Your task to perform on an android device: change the clock display to digital Image 0: 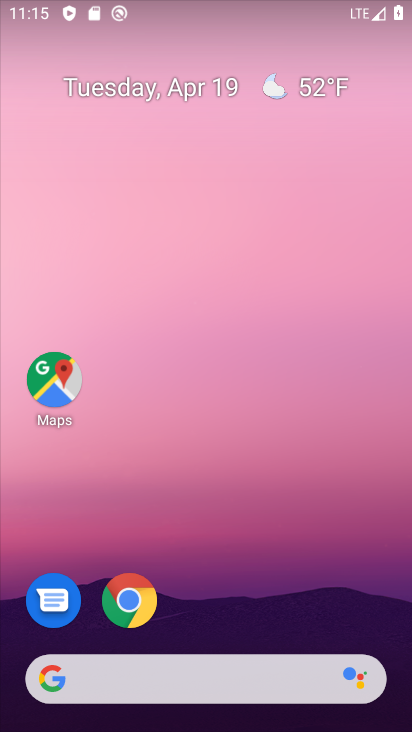
Step 0: drag from (218, 610) to (233, 5)
Your task to perform on an android device: change the clock display to digital Image 1: 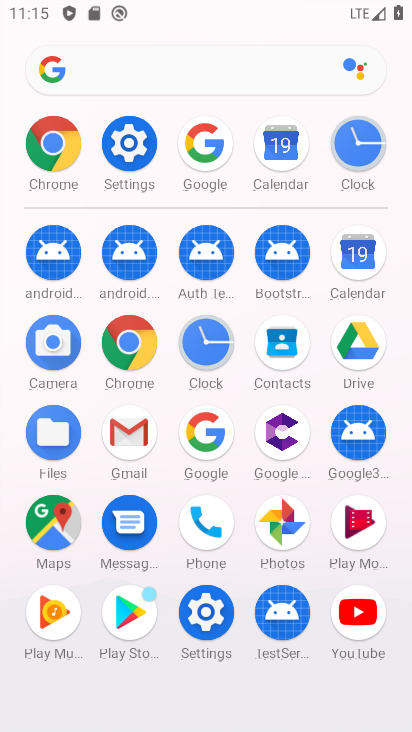
Step 1: click (214, 372)
Your task to perform on an android device: change the clock display to digital Image 2: 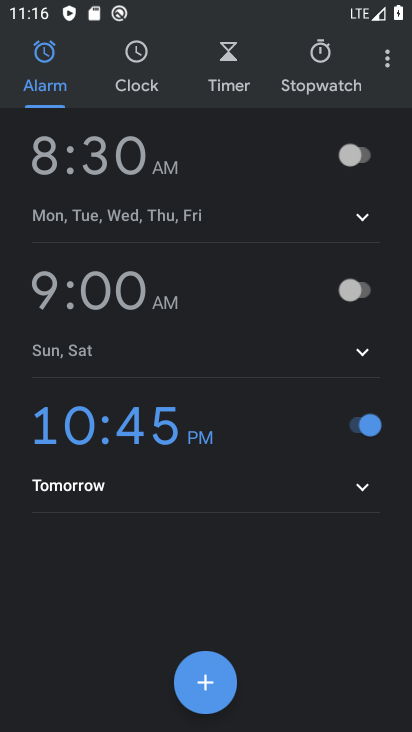
Step 2: click (380, 72)
Your task to perform on an android device: change the clock display to digital Image 3: 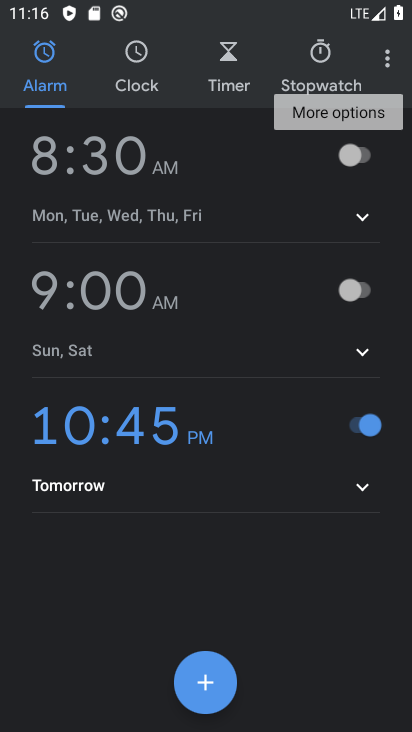
Step 3: click (377, 69)
Your task to perform on an android device: change the clock display to digital Image 4: 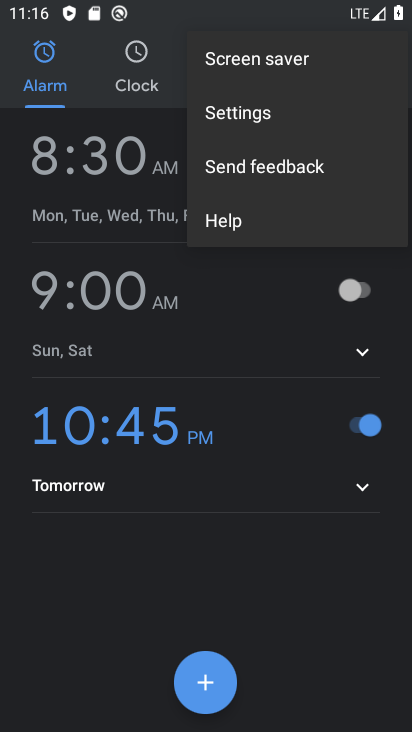
Step 4: click (319, 127)
Your task to perform on an android device: change the clock display to digital Image 5: 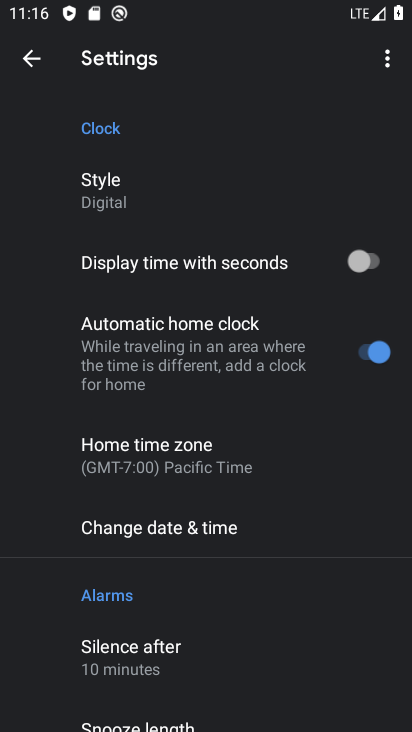
Step 5: click (142, 195)
Your task to perform on an android device: change the clock display to digital Image 6: 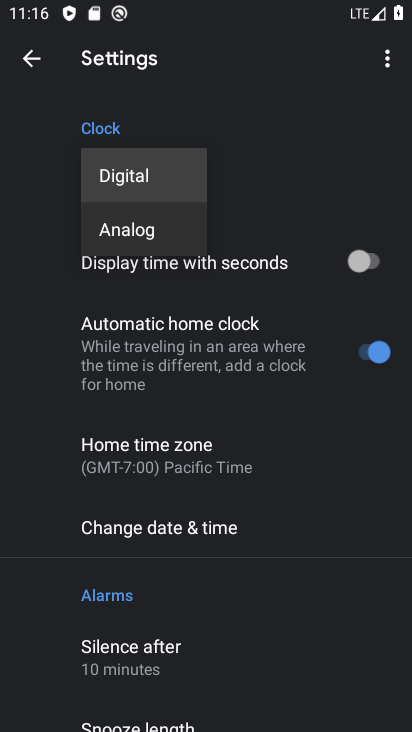
Step 6: click (148, 185)
Your task to perform on an android device: change the clock display to digital Image 7: 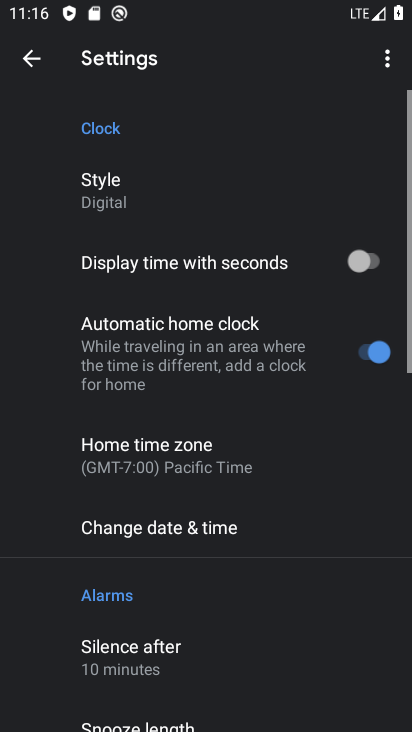
Step 7: task complete